Your task to perform on an android device: Open network settings Image 0: 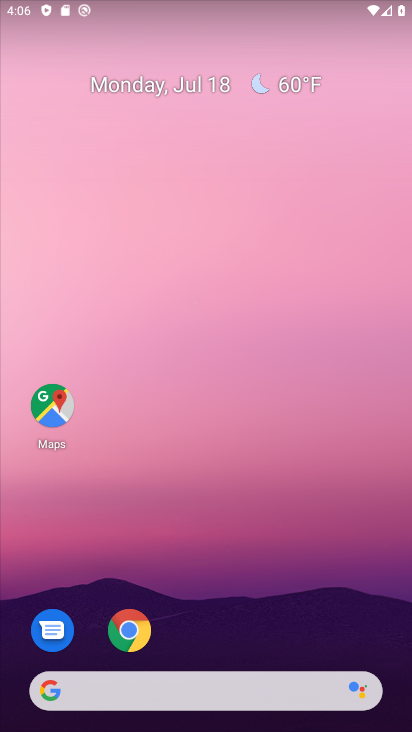
Step 0: drag from (247, 519) to (265, 144)
Your task to perform on an android device: Open network settings Image 1: 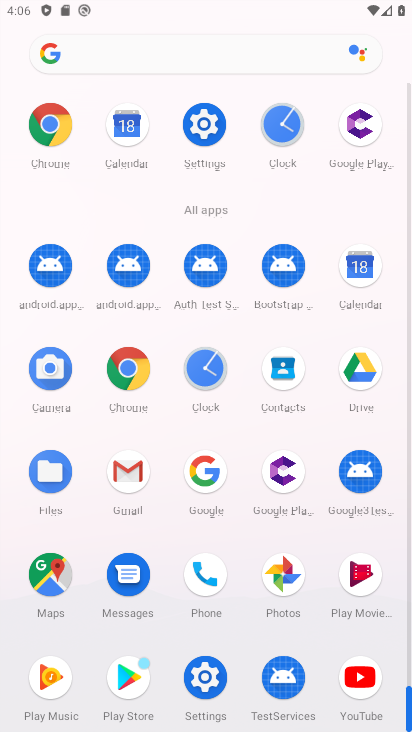
Step 1: click (206, 129)
Your task to perform on an android device: Open network settings Image 2: 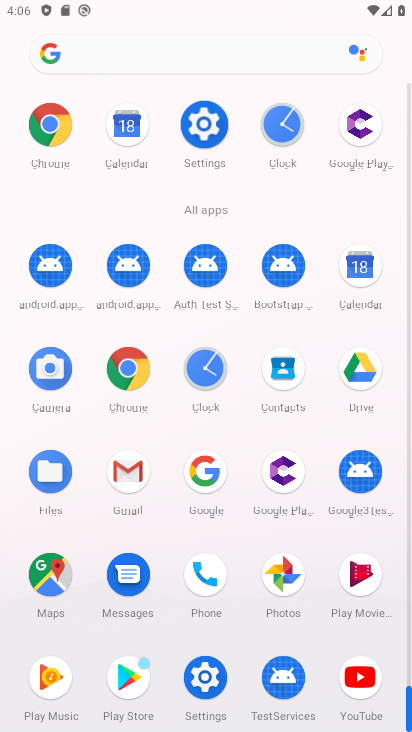
Step 2: click (207, 127)
Your task to perform on an android device: Open network settings Image 3: 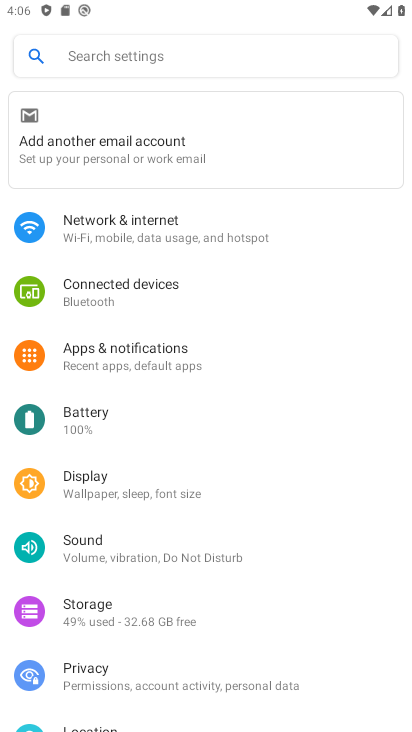
Step 3: click (91, 238)
Your task to perform on an android device: Open network settings Image 4: 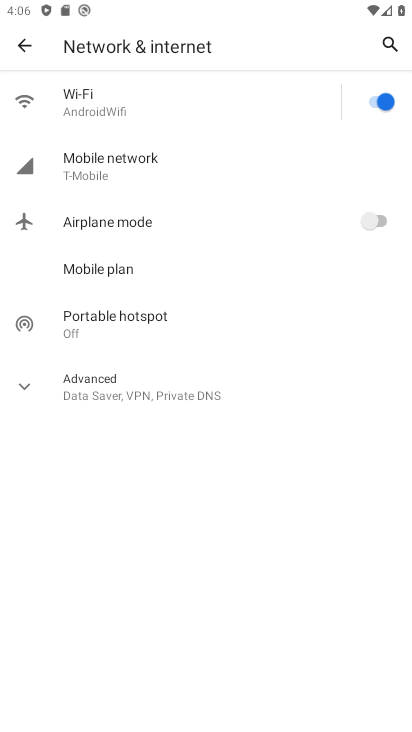
Step 4: task complete